Your task to perform on an android device: uninstall "Facebook Lite" Image 0: 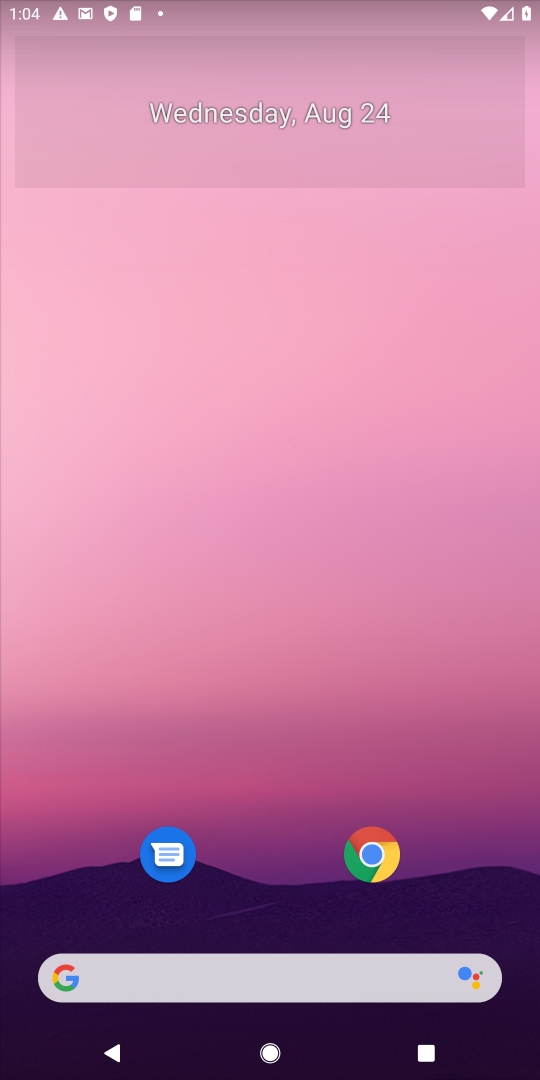
Step 0: press home button
Your task to perform on an android device: uninstall "Facebook Lite" Image 1: 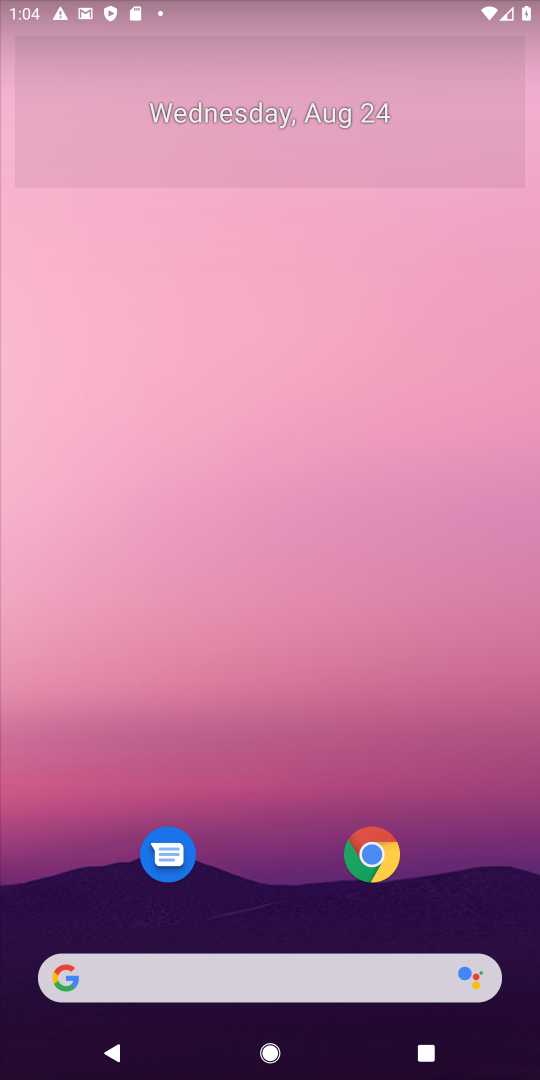
Step 1: click (440, 154)
Your task to perform on an android device: uninstall "Facebook Lite" Image 2: 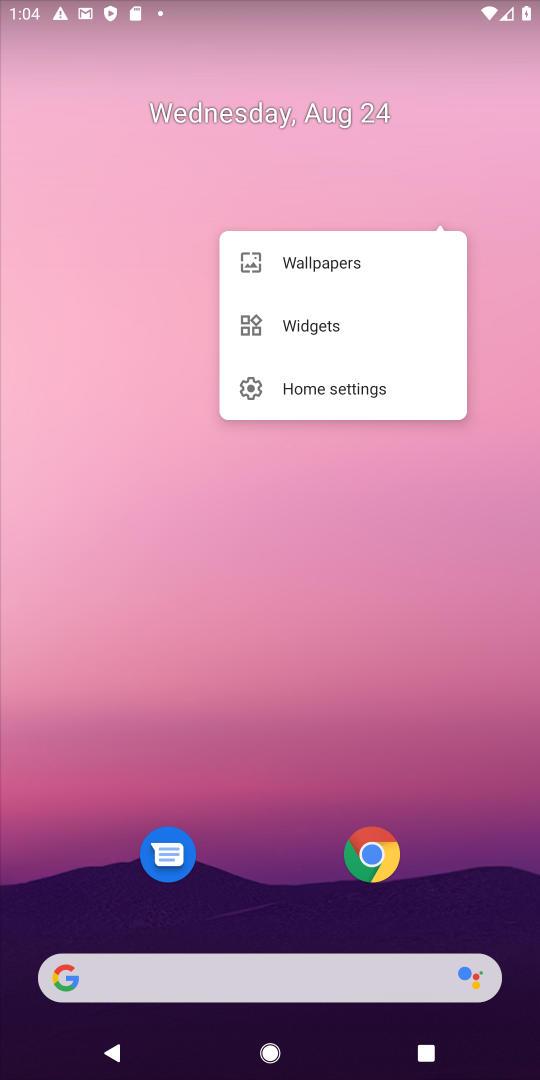
Step 2: click (471, 824)
Your task to perform on an android device: uninstall "Facebook Lite" Image 3: 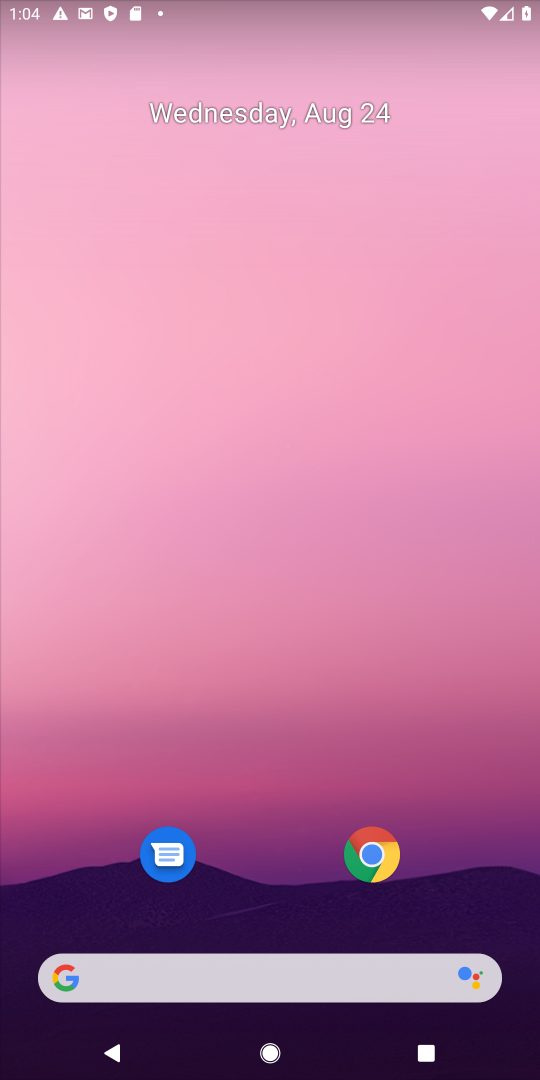
Step 3: drag from (464, 774) to (452, 83)
Your task to perform on an android device: uninstall "Facebook Lite" Image 4: 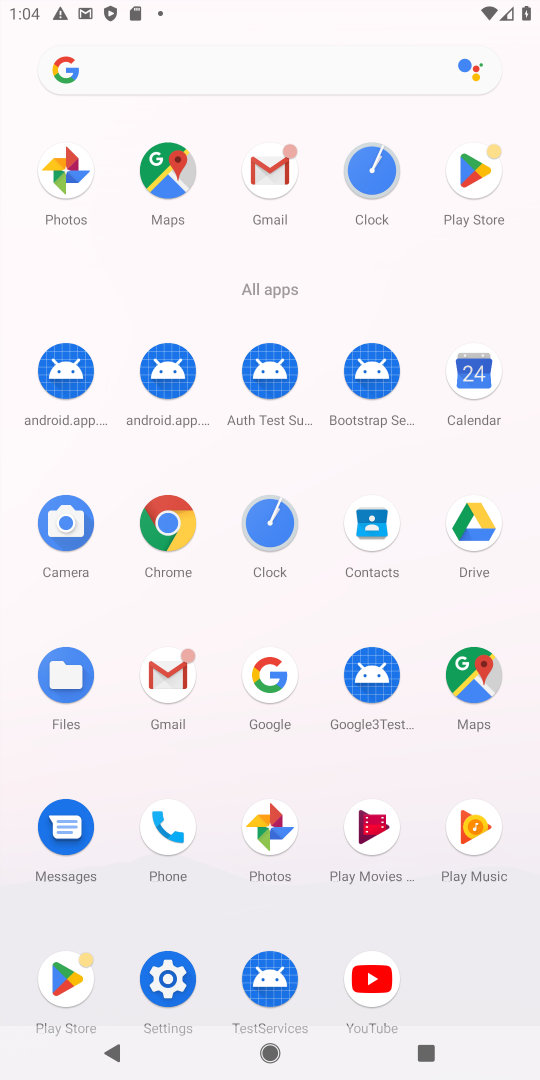
Step 4: click (478, 177)
Your task to perform on an android device: uninstall "Facebook Lite" Image 5: 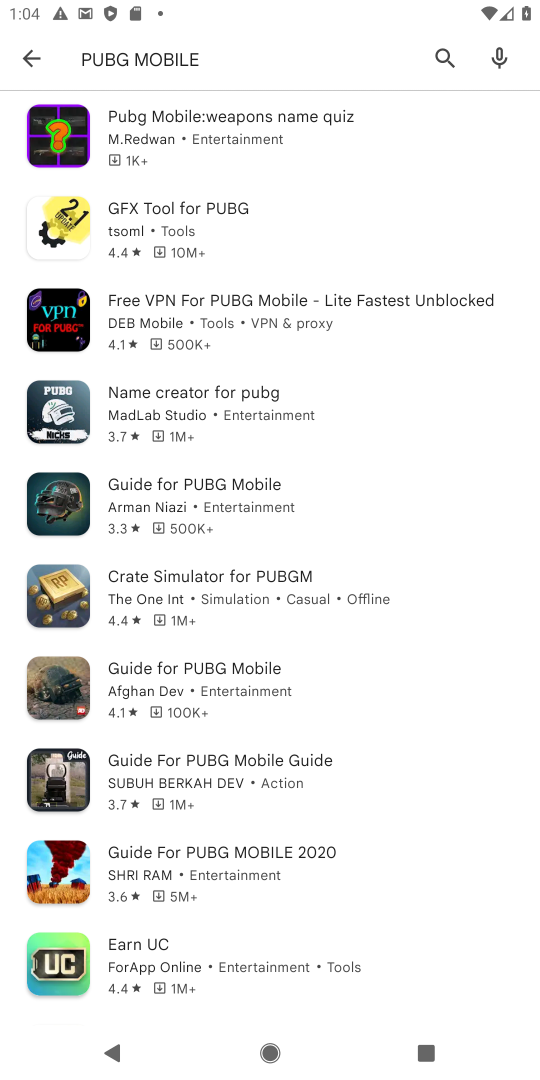
Step 5: press back button
Your task to perform on an android device: uninstall "Facebook Lite" Image 6: 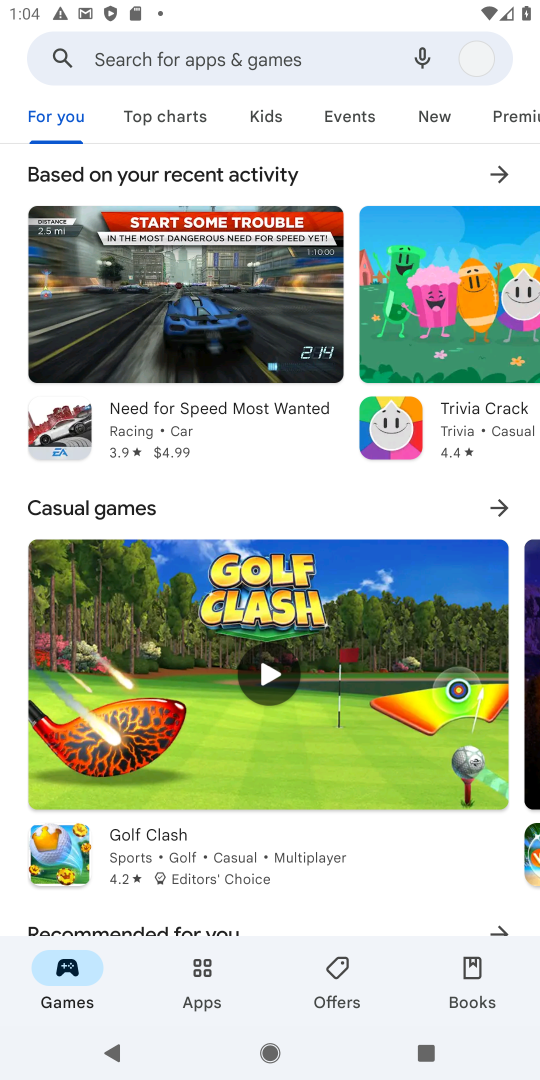
Step 6: click (285, 63)
Your task to perform on an android device: uninstall "Facebook Lite" Image 7: 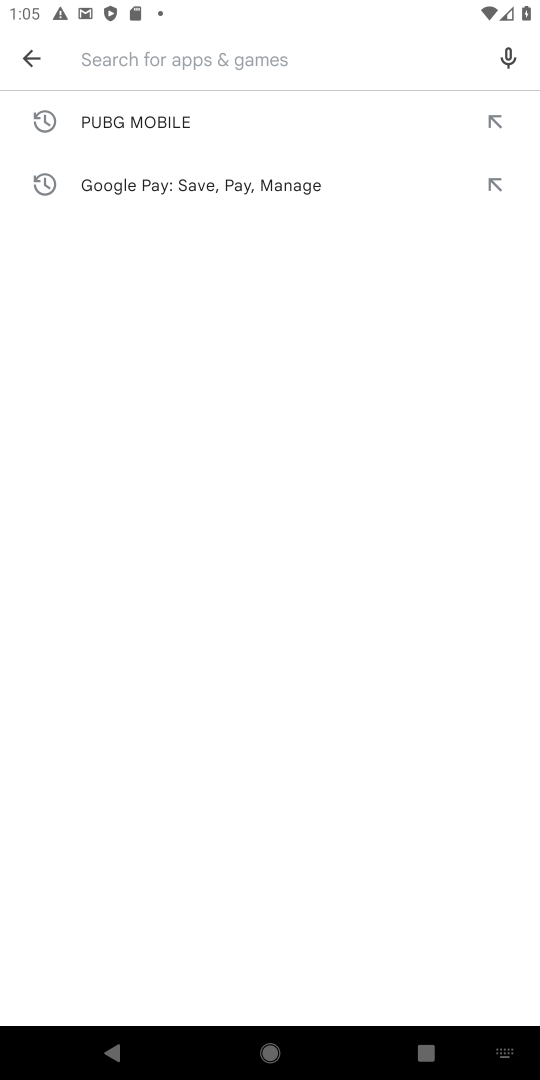
Step 7: type "facebook lite"
Your task to perform on an android device: uninstall "Facebook Lite" Image 8: 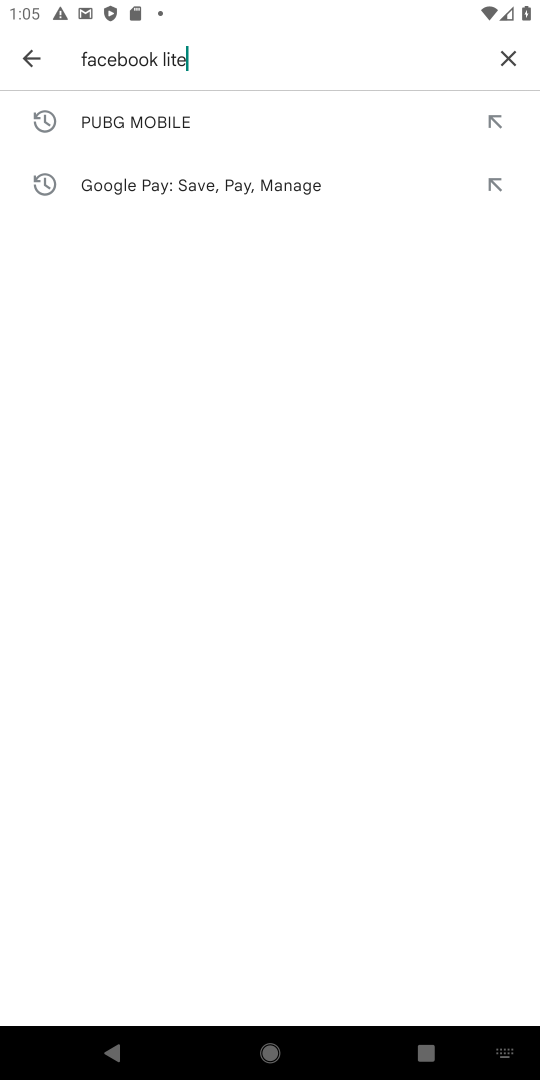
Step 8: press enter
Your task to perform on an android device: uninstall "Facebook Lite" Image 9: 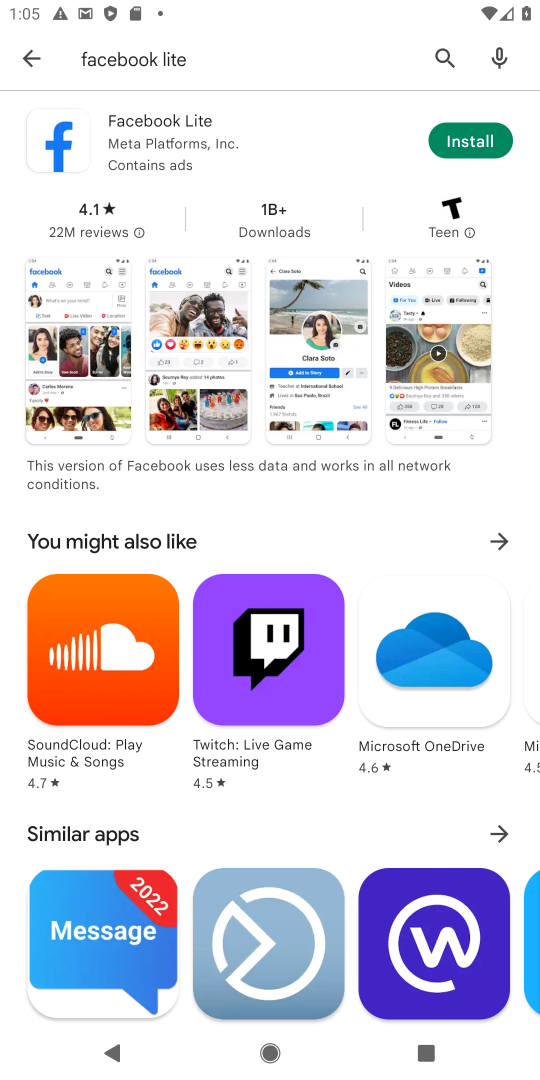
Step 9: task complete